Your task to perform on an android device: Search for the new Nintendo switch on Best Buy Image 0: 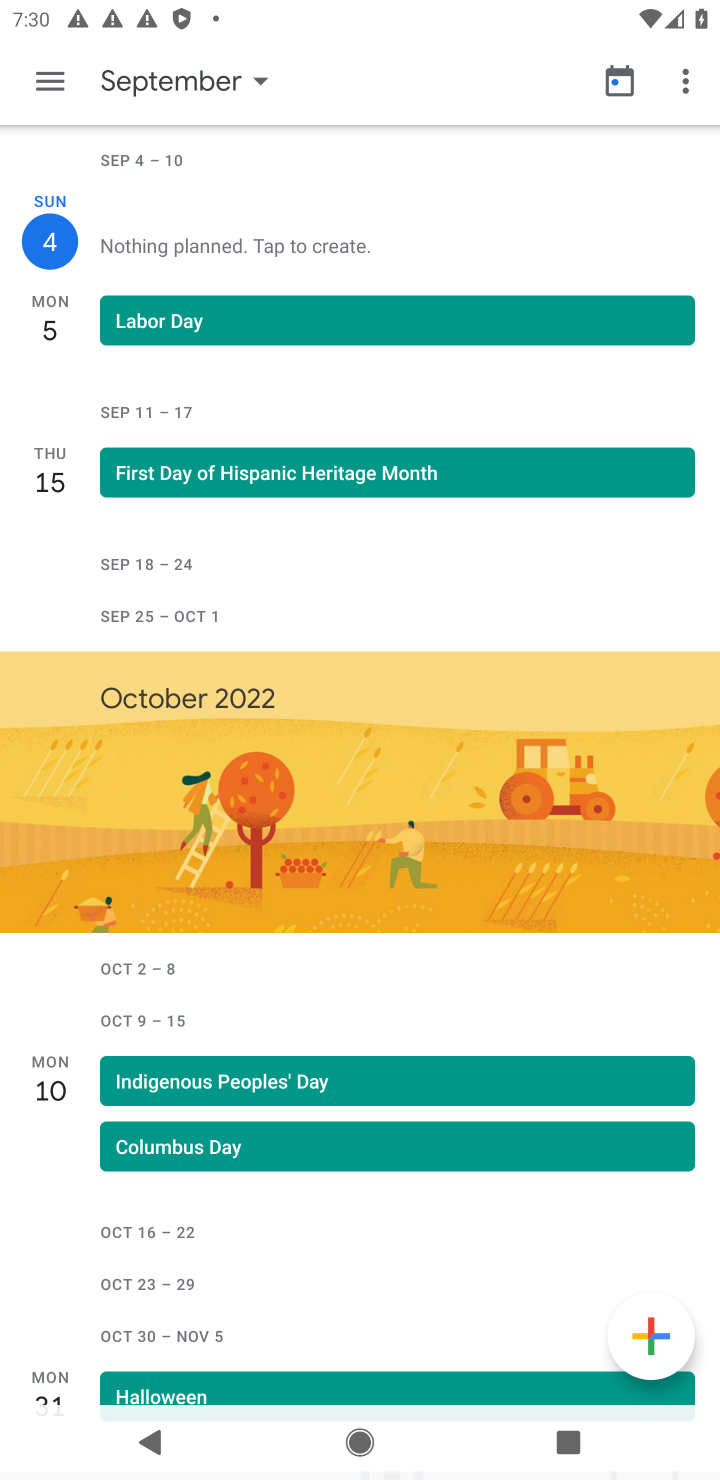
Step 0: press home button
Your task to perform on an android device: Search for the new Nintendo switch on Best Buy Image 1: 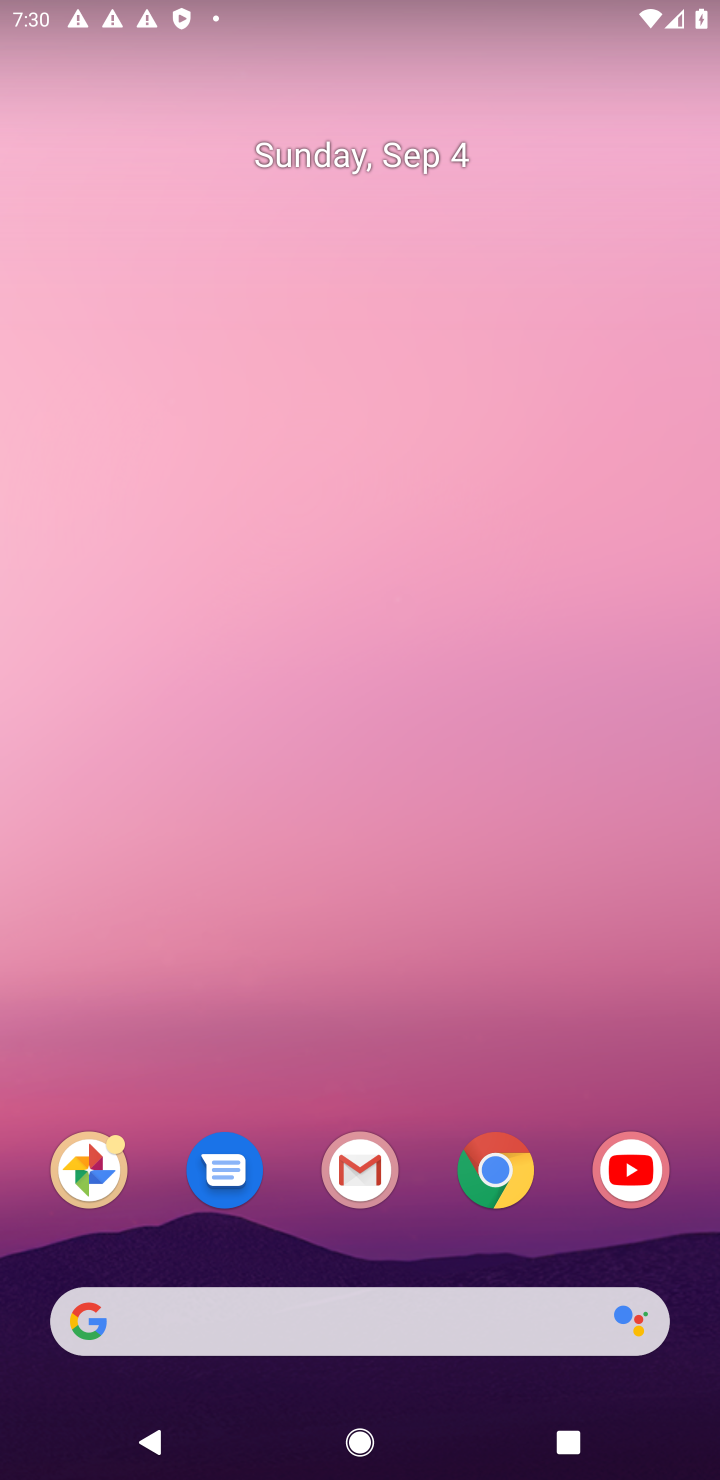
Step 1: click (499, 1168)
Your task to perform on an android device: Search for the new Nintendo switch on Best Buy Image 2: 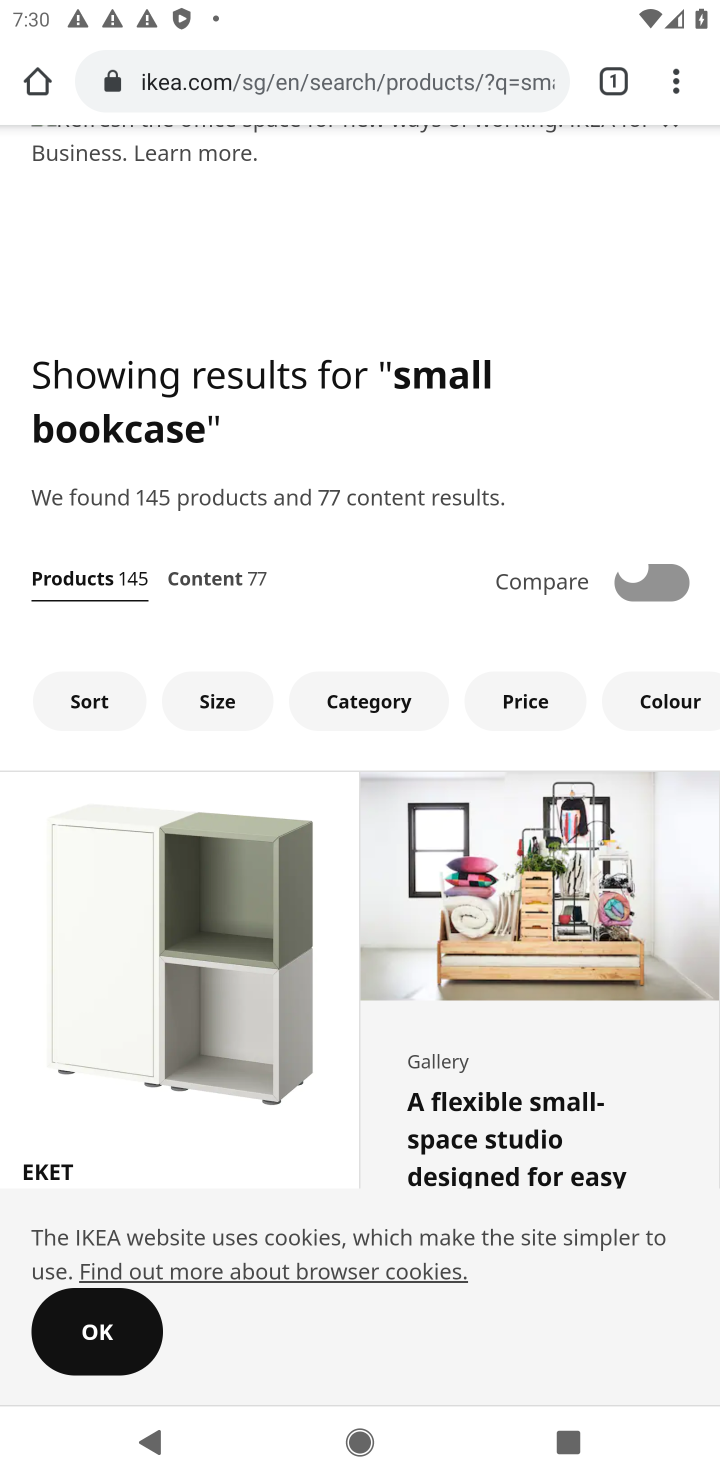
Step 2: click (360, 73)
Your task to perform on an android device: Search for the new Nintendo switch on Best Buy Image 3: 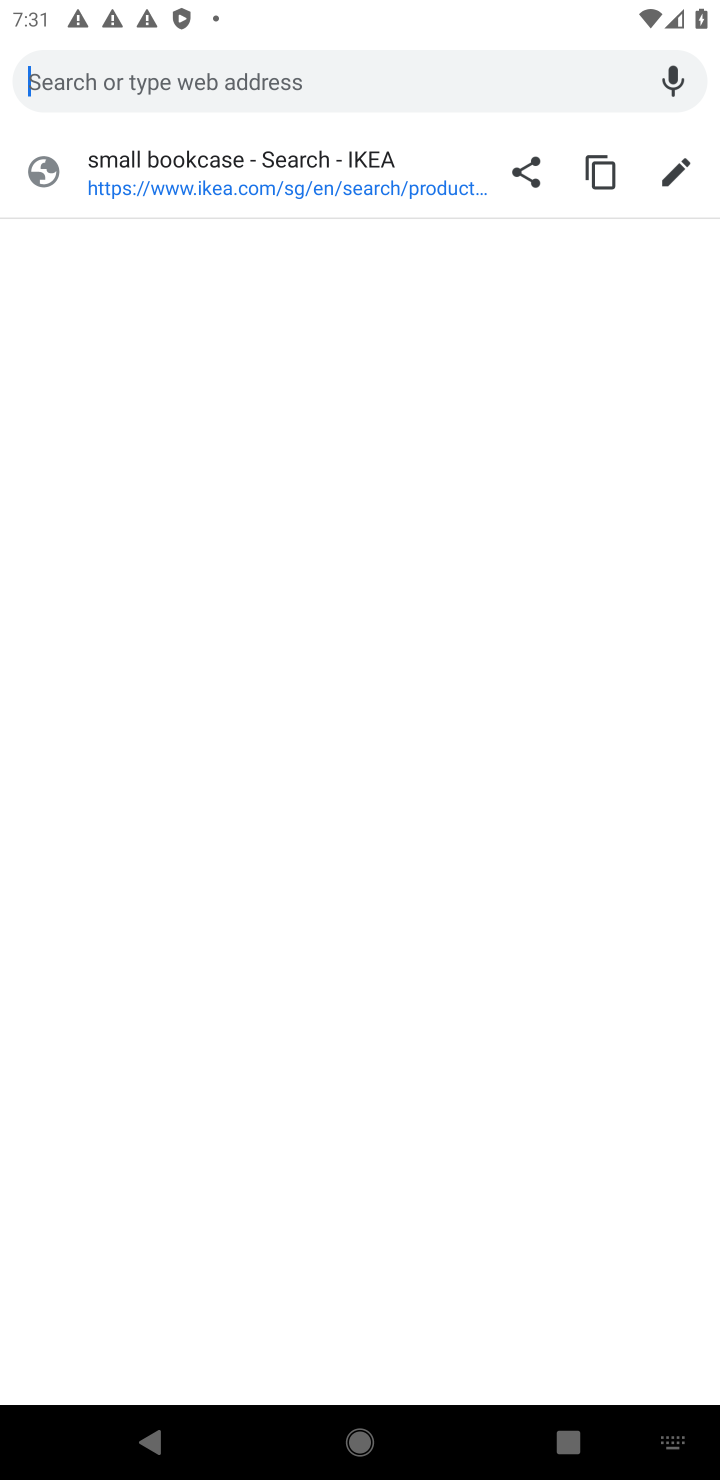
Step 3: type "best Buy"
Your task to perform on an android device: Search for the new Nintendo switch on Best Buy Image 4: 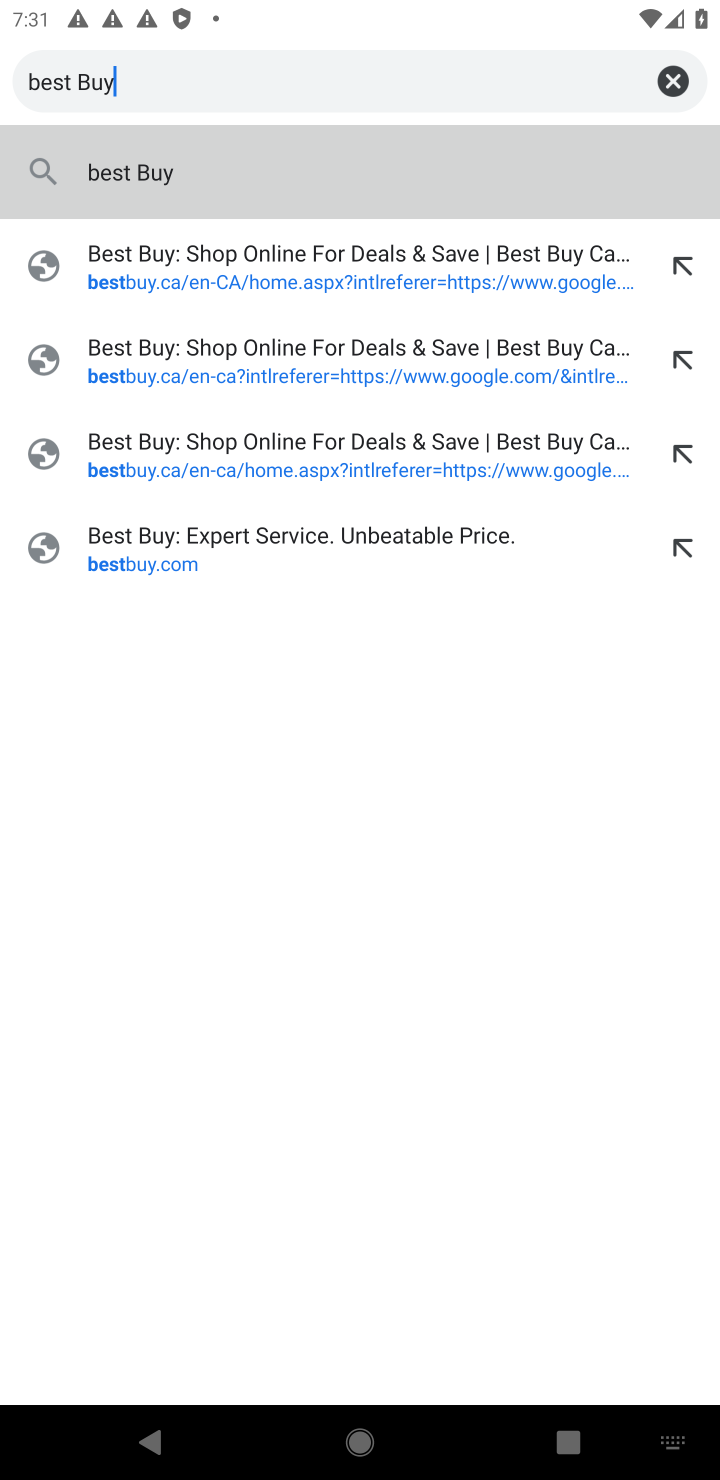
Step 4: click (190, 149)
Your task to perform on an android device: Search for the new Nintendo switch on Best Buy Image 5: 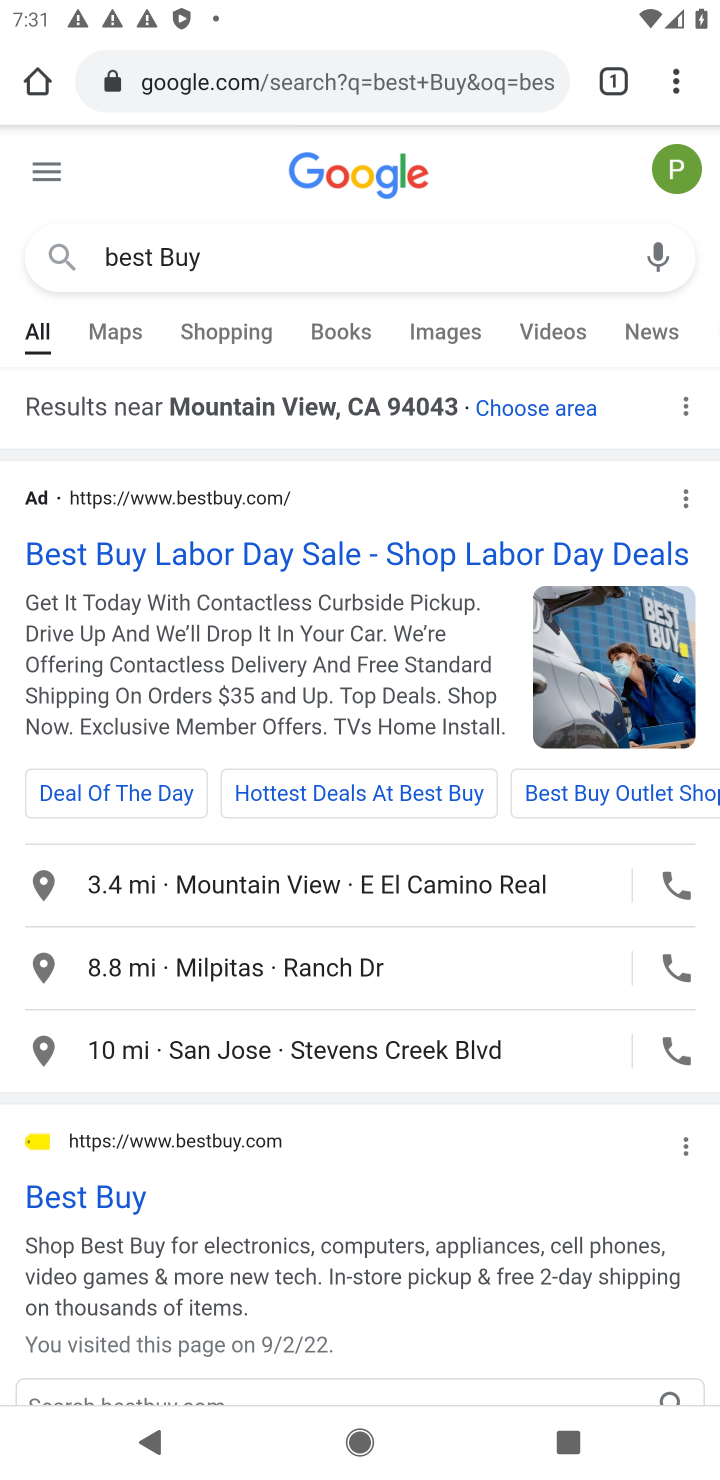
Step 5: click (394, 543)
Your task to perform on an android device: Search for the new Nintendo switch on Best Buy Image 6: 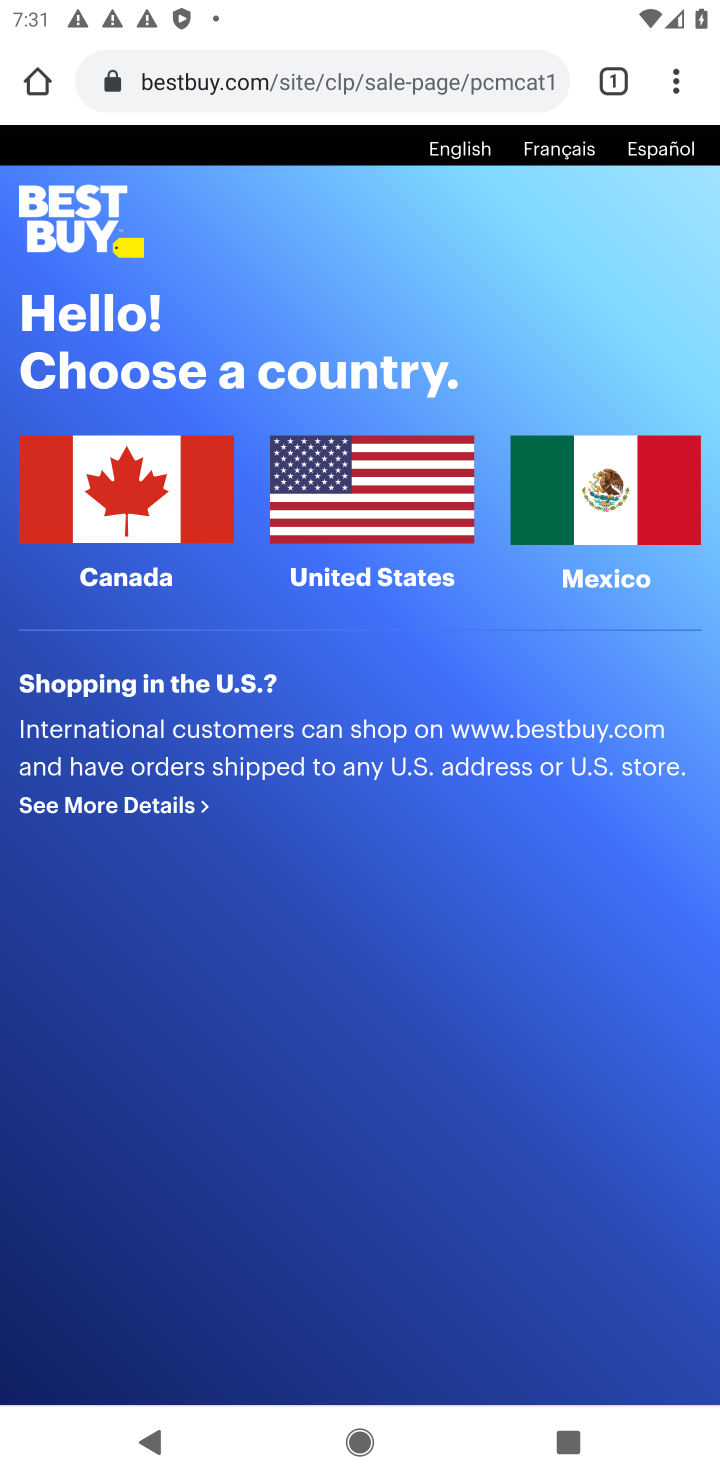
Step 6: click (394, 543)
Your task to perform on an android device: Search for the new Nintendo switch on Best Buy Image 7: 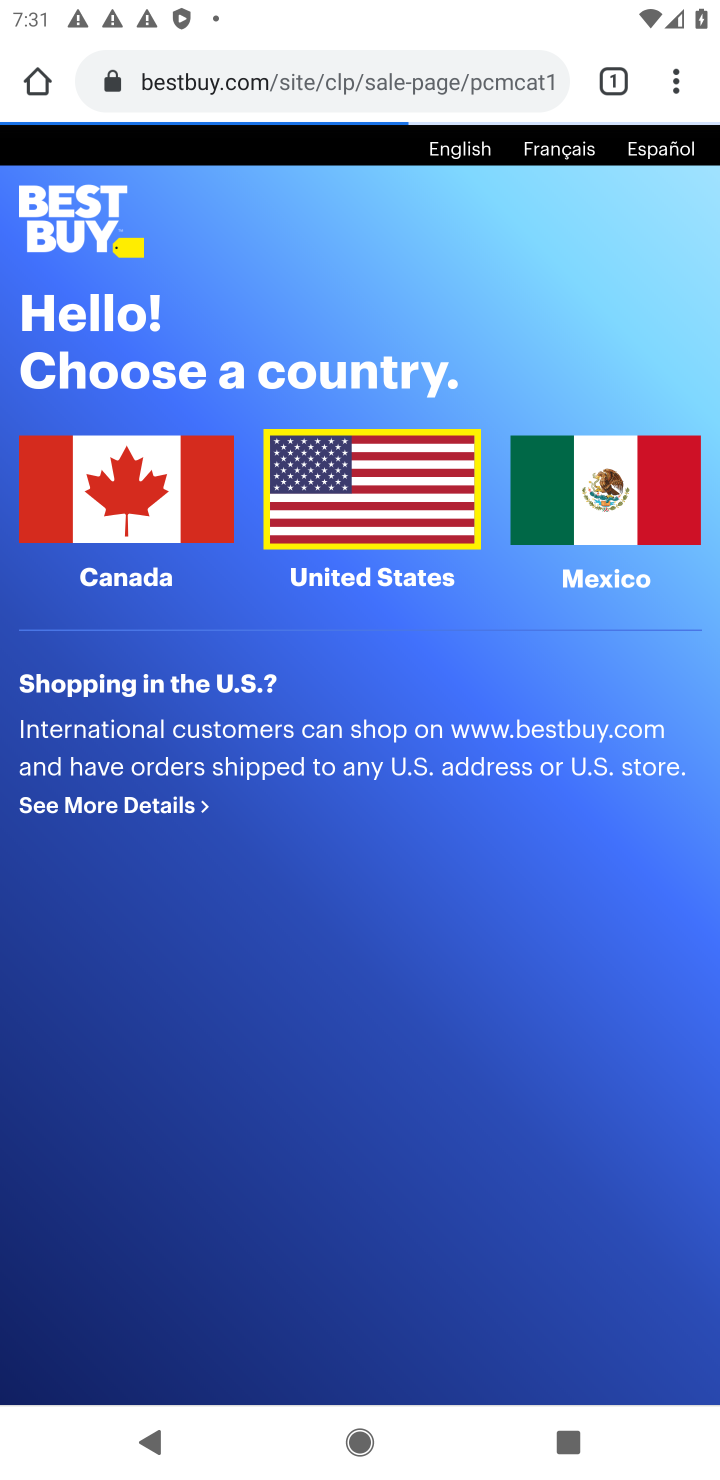
Step 7: click (402, 484)
Your task to perform on an android device: Search for the new Nintendo switch on Best Buy Image 8: 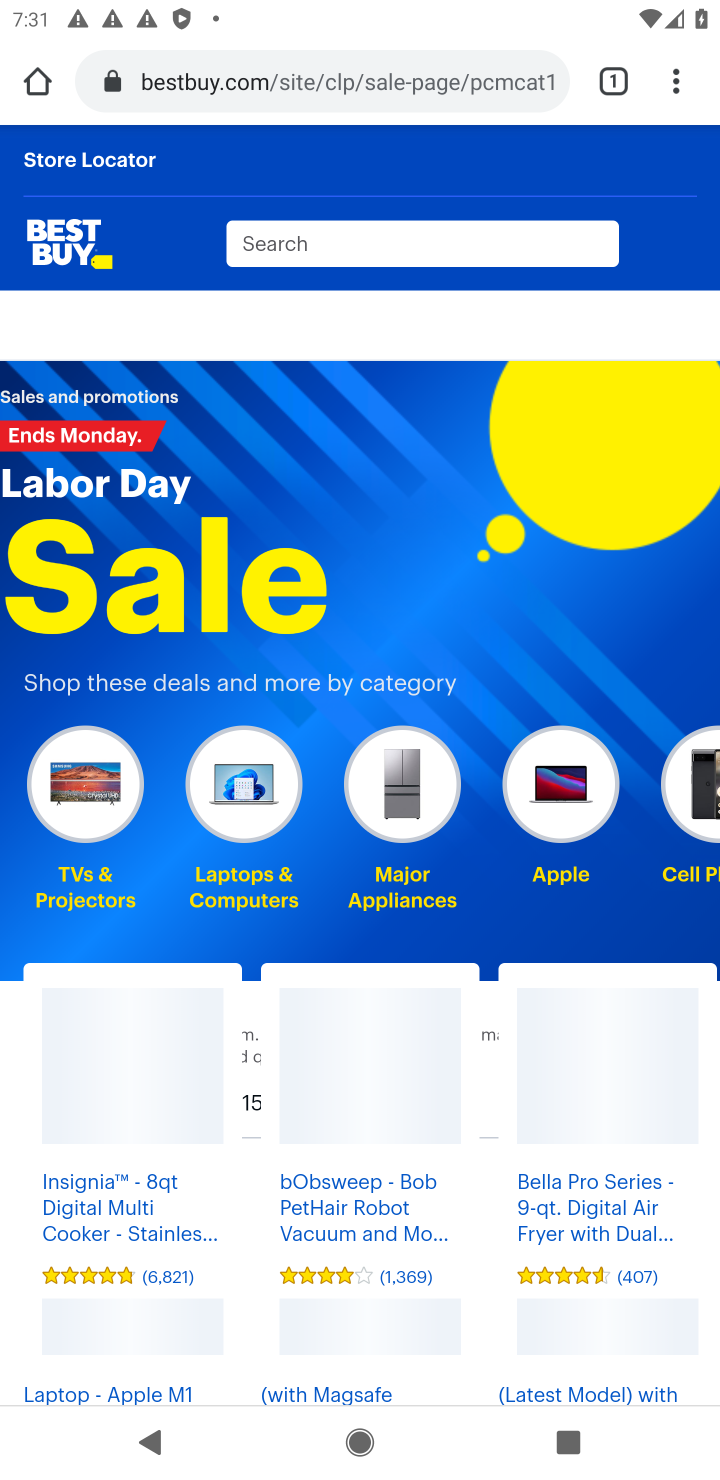
Step 8: click (353, 250)
Your task to perform on an android device: Search for the new Nintendo switch on Best Buy Image 9: 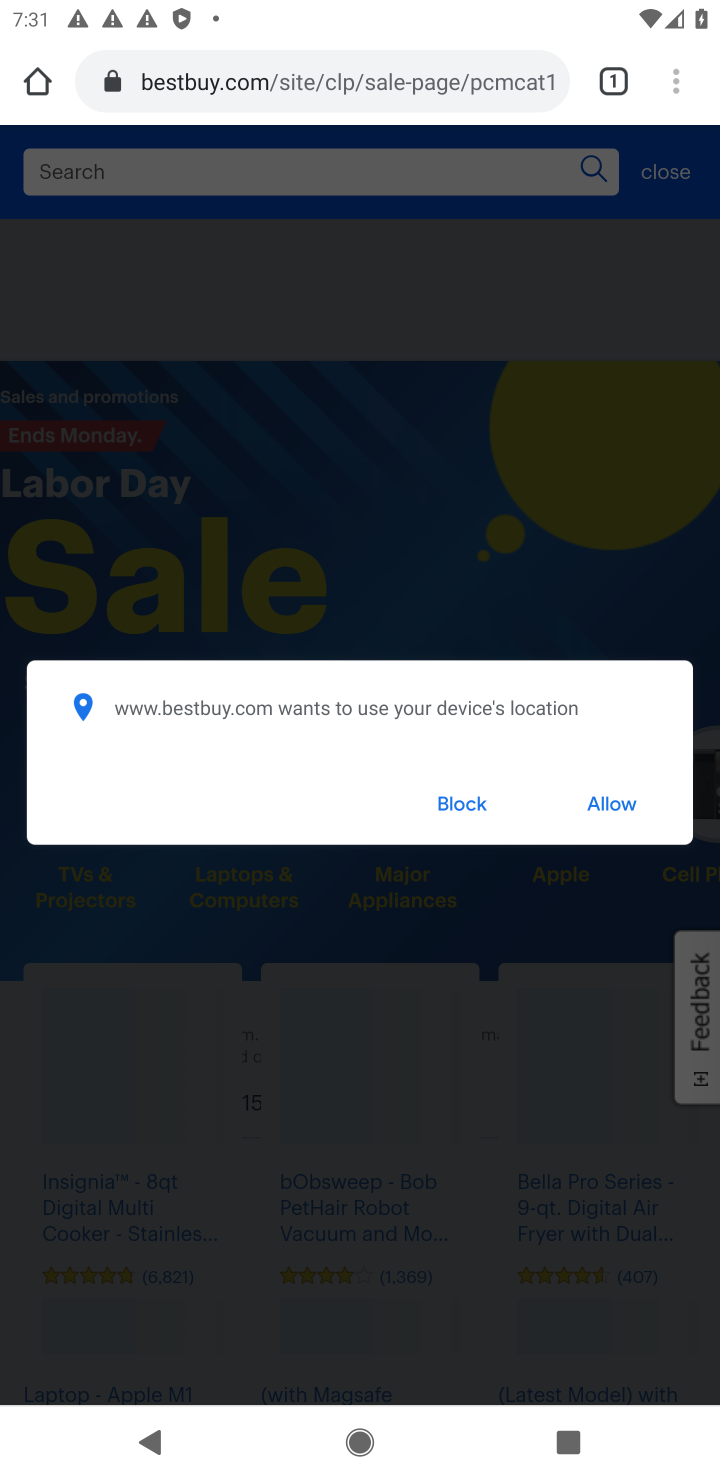
Step 9: type "the new Nintendo"
Your task to perform on an android device: Search for the new Nintendo switch on Best Buy Image 10: 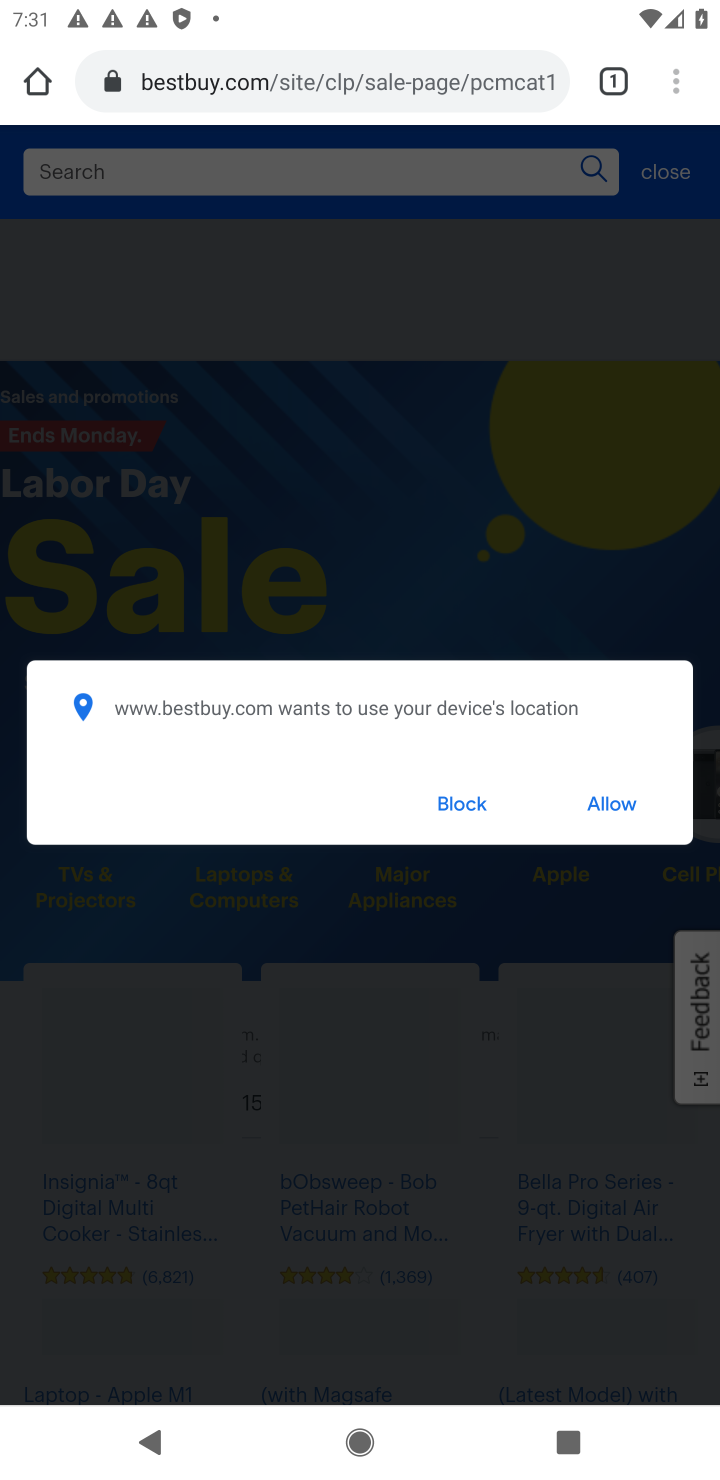
Step 10: click (459, 805)
Your task to perform on an android device: Search for the new Nintendo switch on Best Buy Image 11: 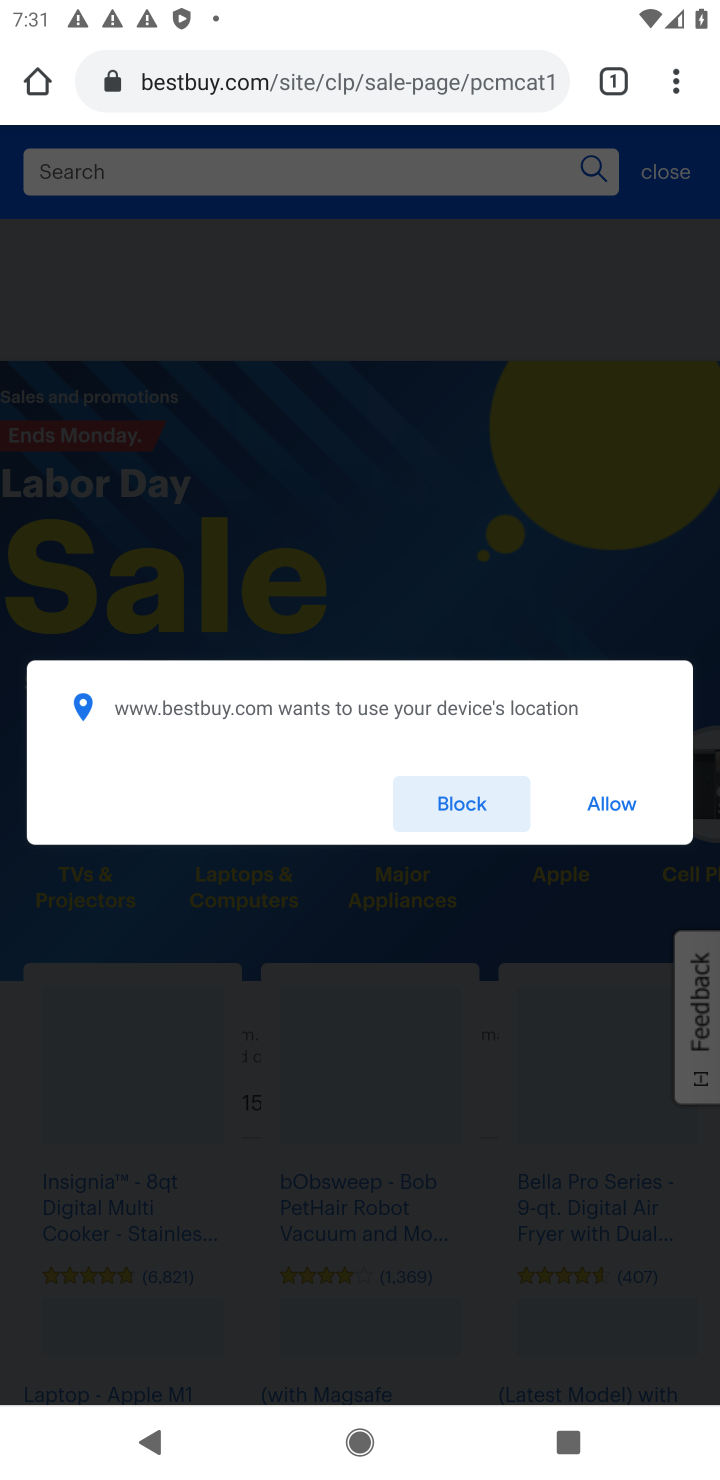
Step 11: click (459, 805)
Your task to perform on an android device: Search for the new Nintendo switch on Best Buy Image 12: 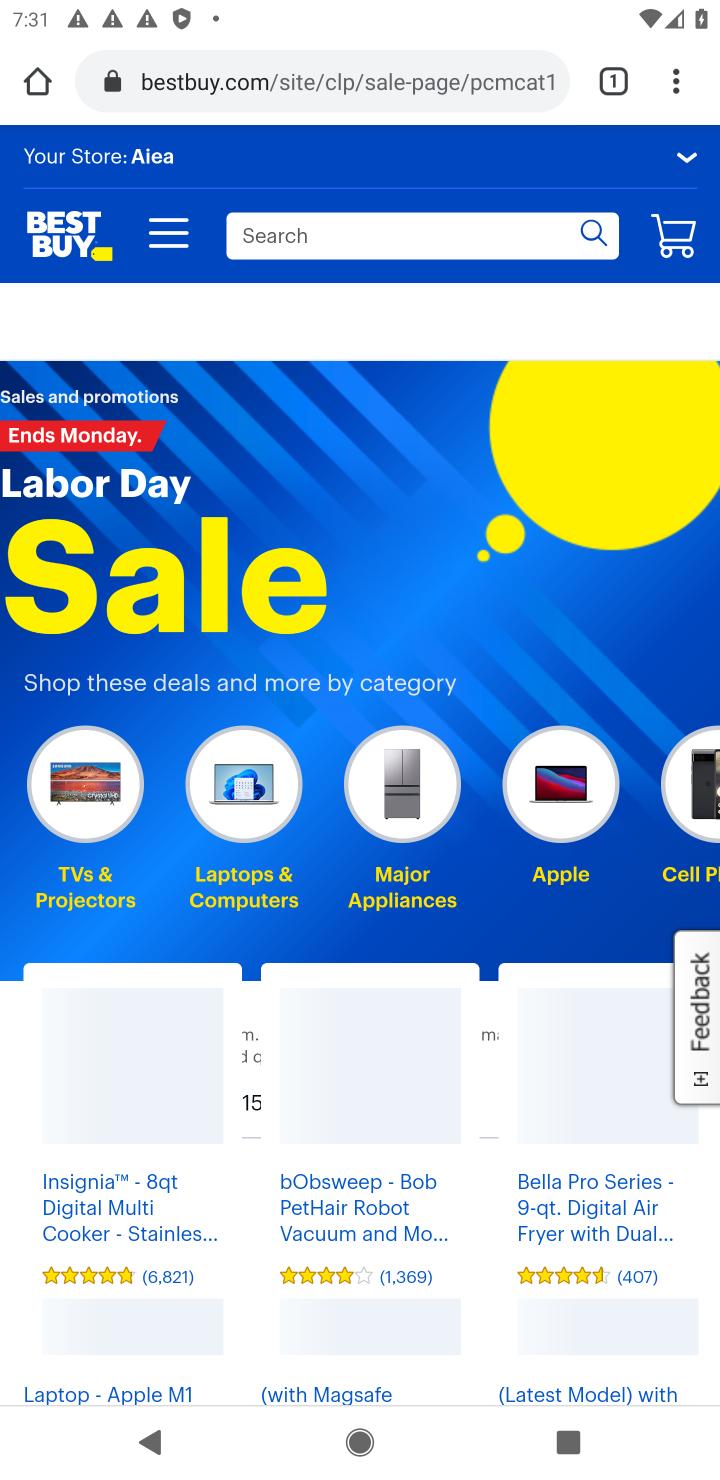
Step 12: click (385, 255)
Your task to perform on an android device: Search for the new Nintendo switch on Best Buy Image 13: 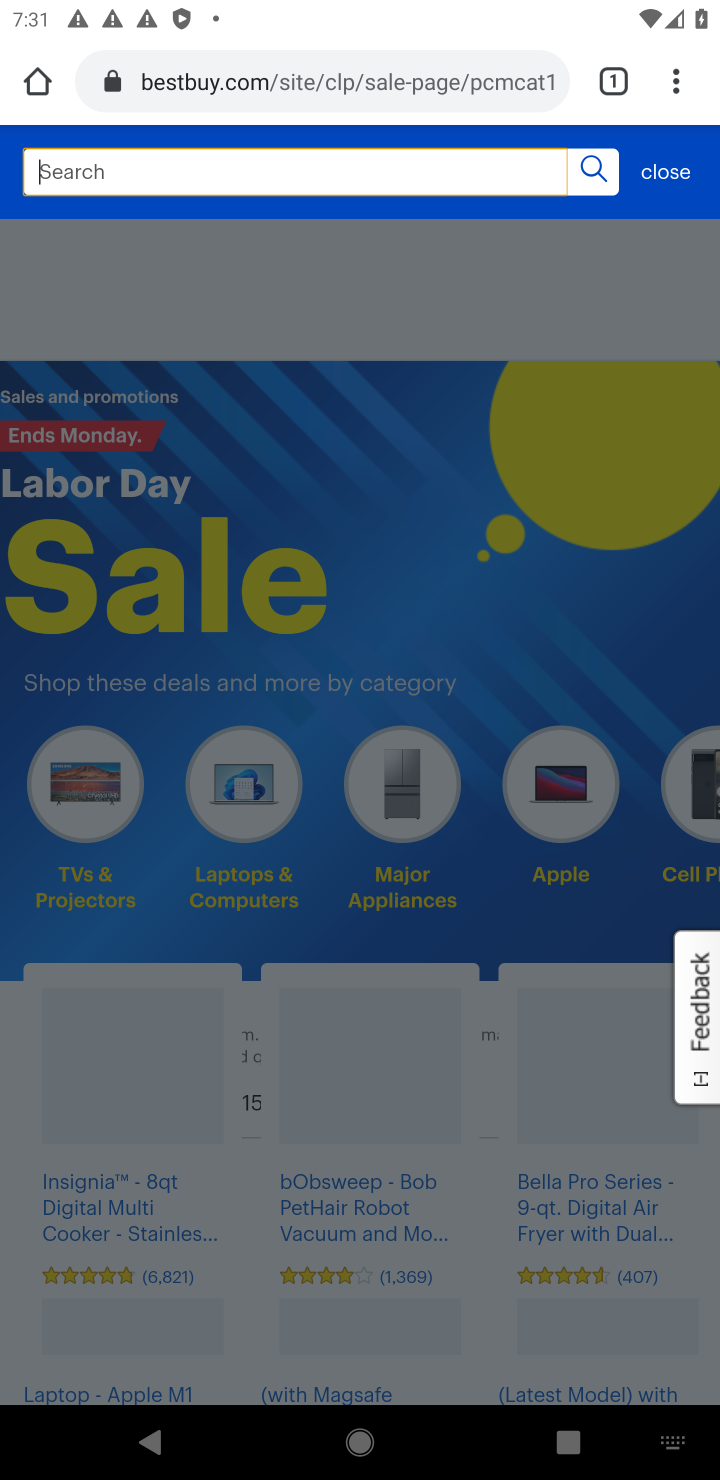
Step 13: type "the new Nintendo"
Your task to perform on an android device: Search for the new Nintendo switch on Best Buy Image 14: 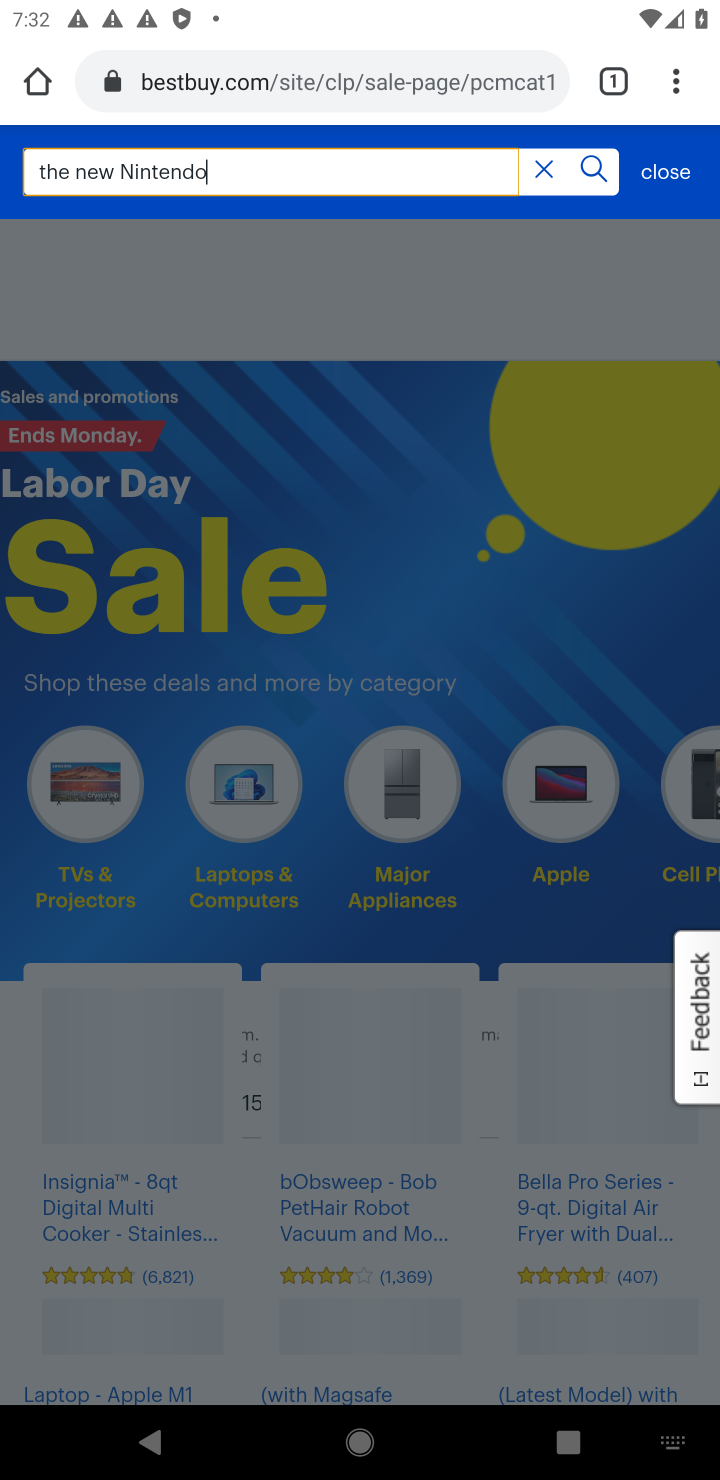
Step 14: click (586, 159)
Your task to perform on an android device: Search for the new Nintendo switch on Best Buy Image 15: 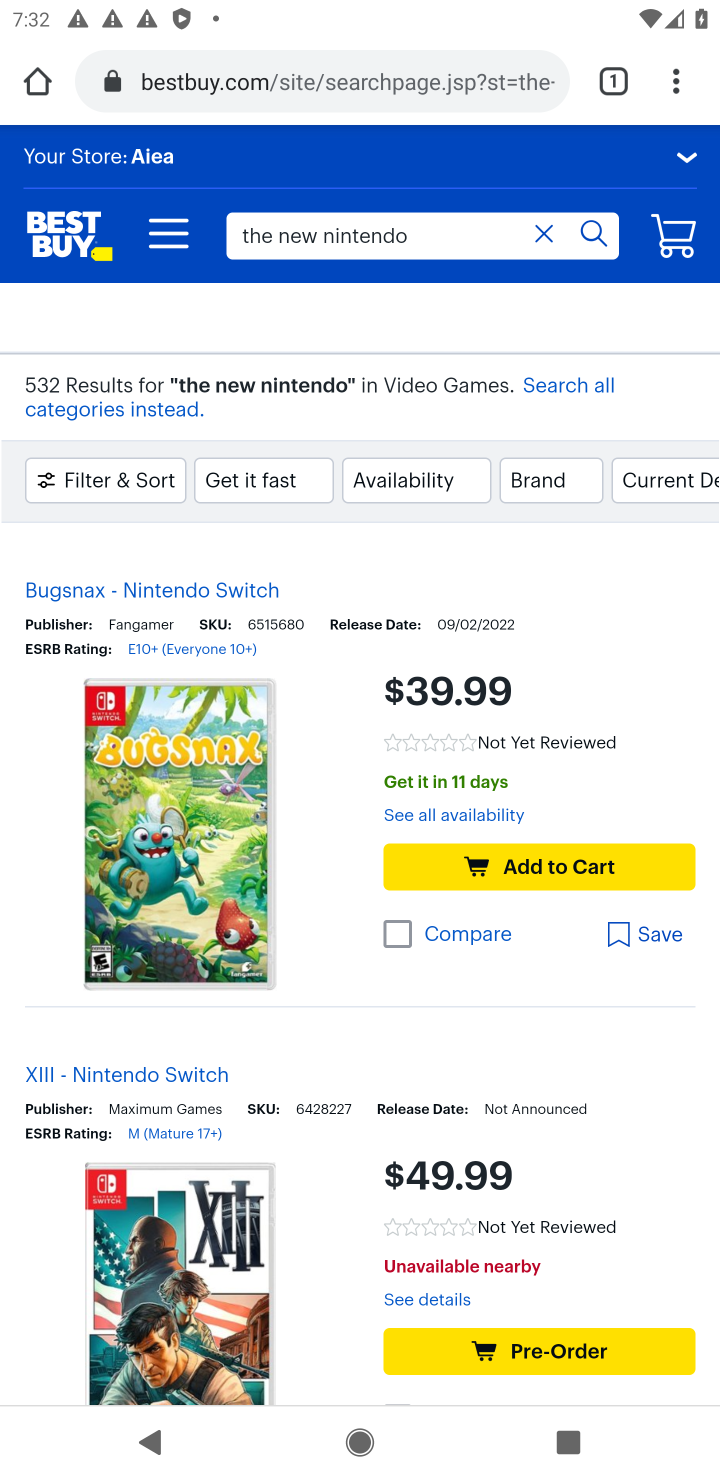
Step 15: task complete